Your task to perform on an android device: Open Android settings Image 0: 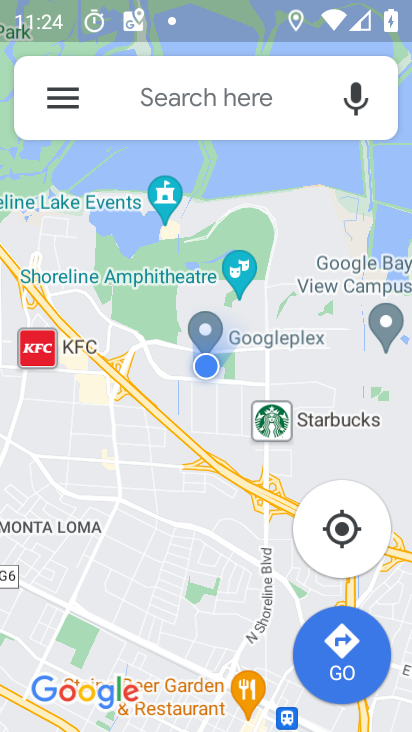
Step 0: press home button
Your task to perform on an android device: Open Android settings Image 1: 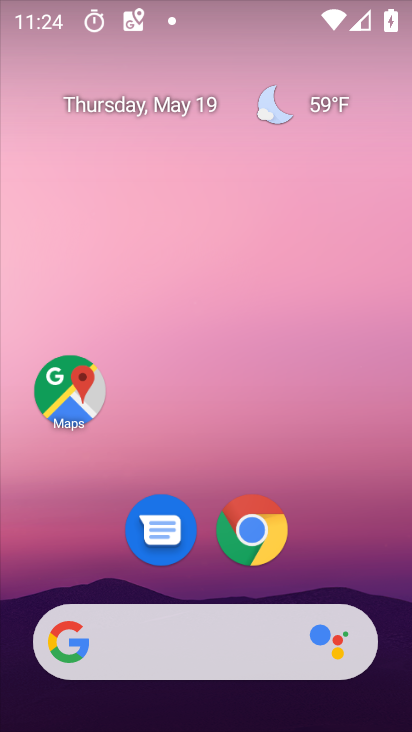
Step 1: drag from (377, 555) to (335, 144)
Your task to perform on an android device: Open Android settings Image 2: 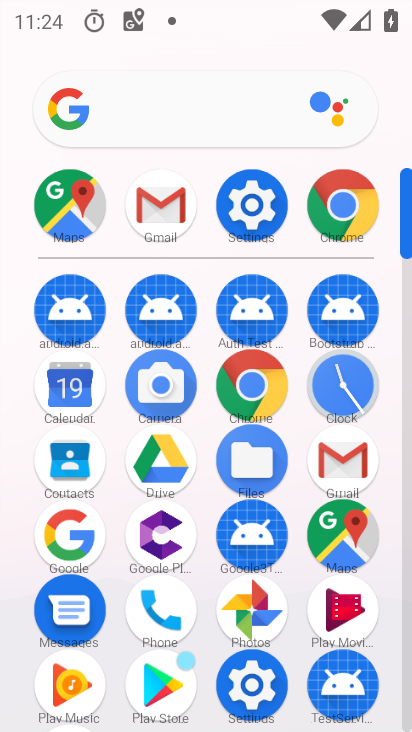
Step 2: click (262, 222)
Your task to perform on an android device: Open Android settings Image 3: 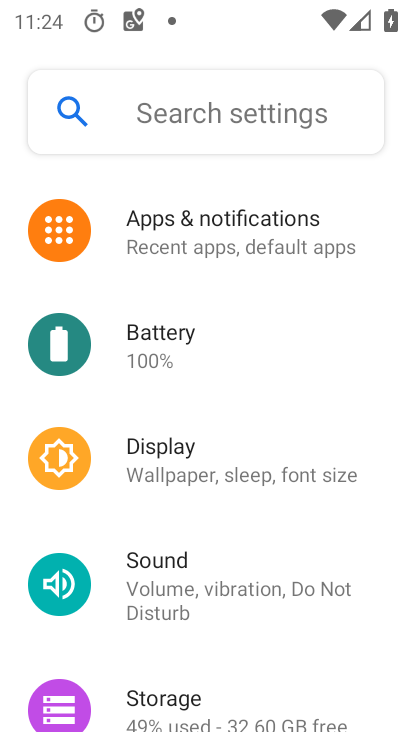
Step 3: drag from (209, 671) to (283, 221)
Your task to perform on an android device: Open Android settings Image 4: 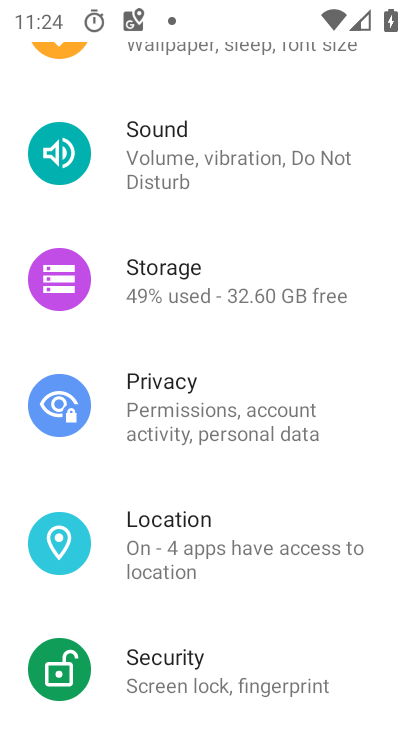
Step 4: drag from (256, 632) to (295, 247)
Your task to perform on an android device: Open Android settings Image 5: 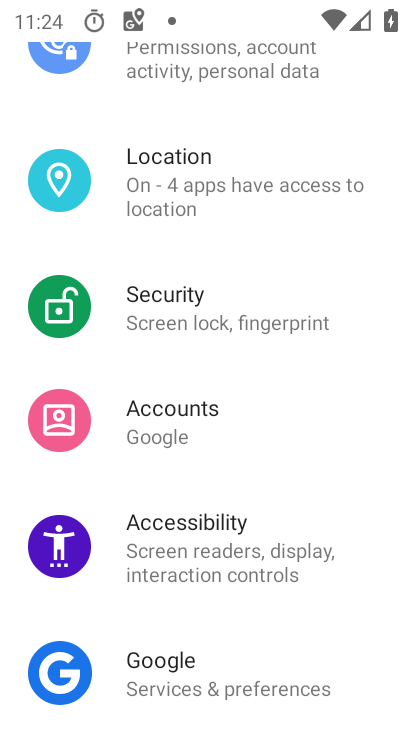
Step 5: drag from (284, 617) to (284, 167)
Your task to perform on an android device: Open Android settings Image 6: 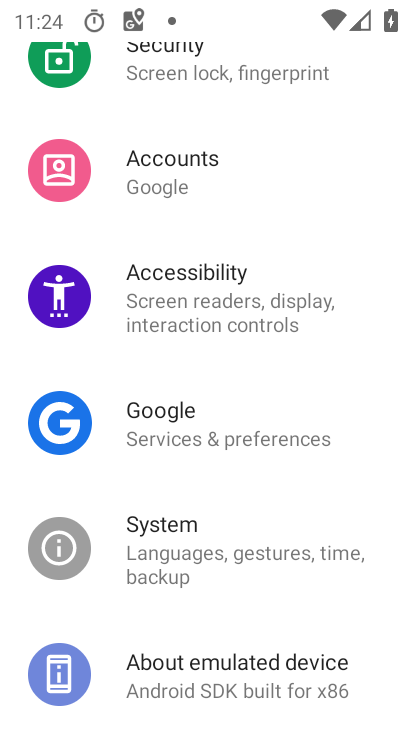
Step 6: click (263, 704)
Your task to perform on an android device: Open Android settings Image 7: 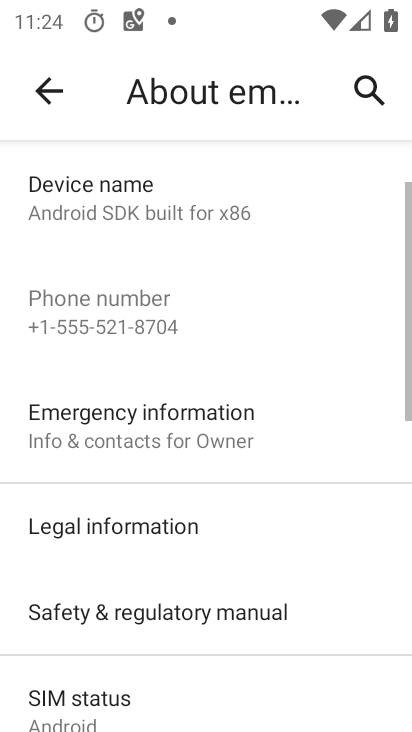
Step 7: task complete